Your task to perform on an android device: open a bookmark in the chrome app Image 0: 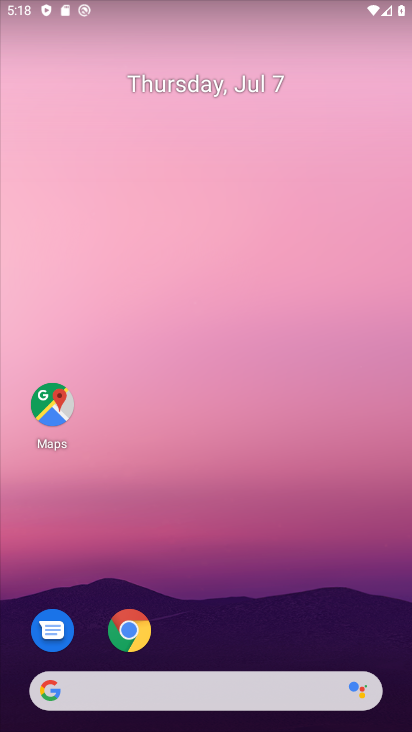
Step 0: click (117, 646)
Your task to perform on an android device: open a bookmark in the chrome app Image 1: 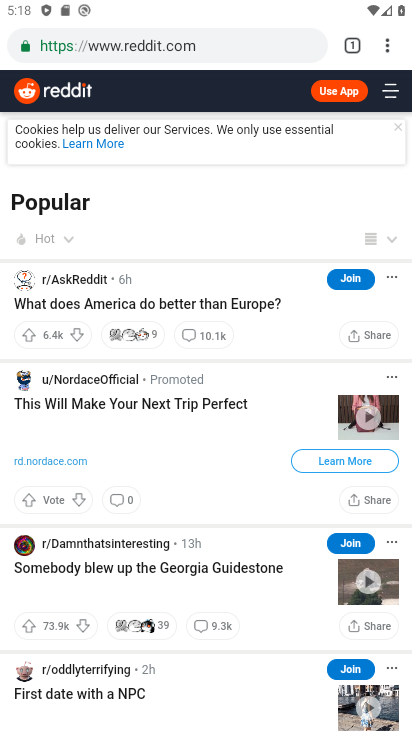
Step 1: click (392, 45)
Your task to perform on an android device: open a bookmark in the chrome app Image 2: 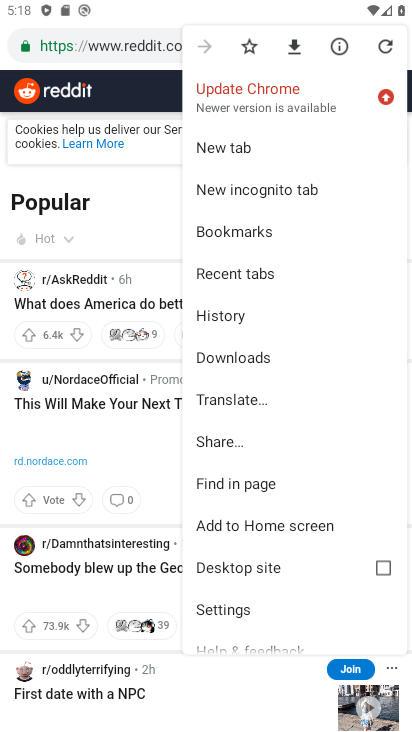
Step 2: click (217, 612)
Your task to perform on an android device: open a bookmark in the chrome app Image 3: 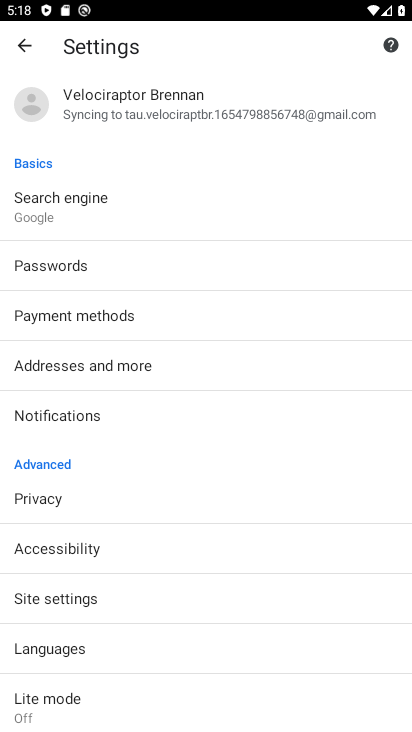
Step 3: drag from (134, 440) to (162, 363)
Your task to perform on an android device: open a bookmark in the chrome app Image 4: 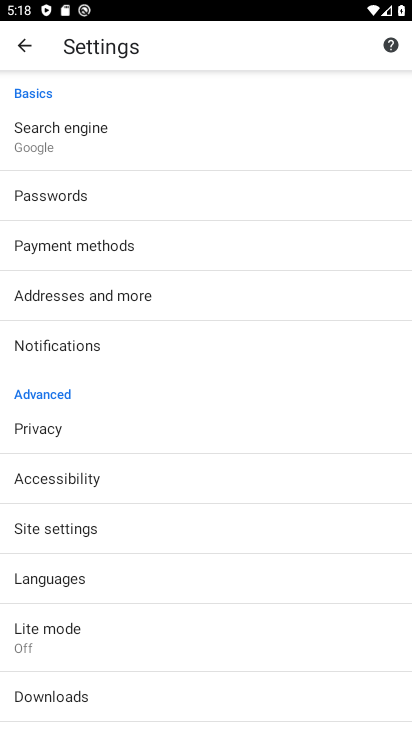
Step 4: click (14, 51)
Your task to perform on an android device: open a bookmark in the chrome app Image 5: 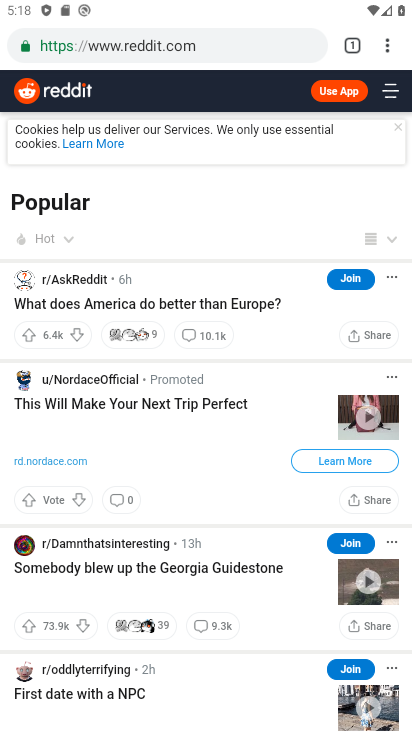
Step 5: click (391, 50)
Your task to perform on an android device: open a bookmark in the chrome app Image 6: 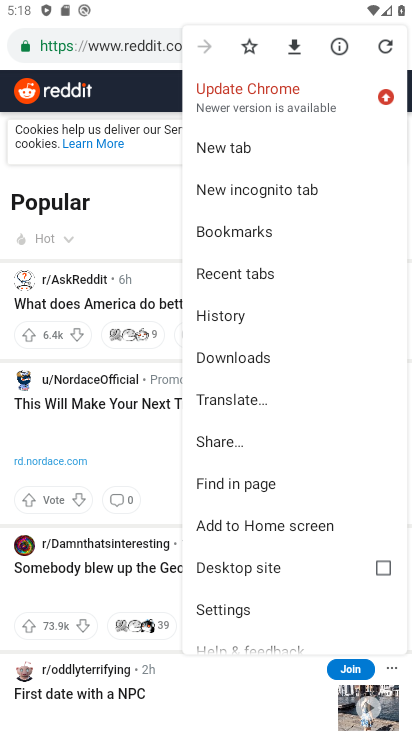
Step 6: click (247, 238)
Your task to perform on an android device: open a bookmark in the chrome app Image 7: 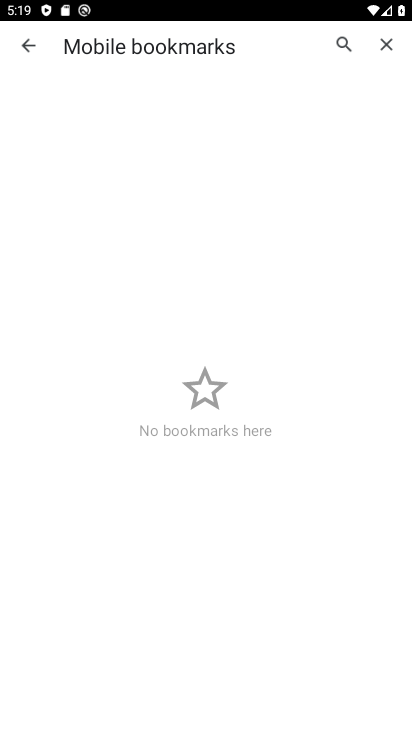
Step 7: task complete